Your task to perform on an android device: What's the weather going to be tomorrow? Image 0: 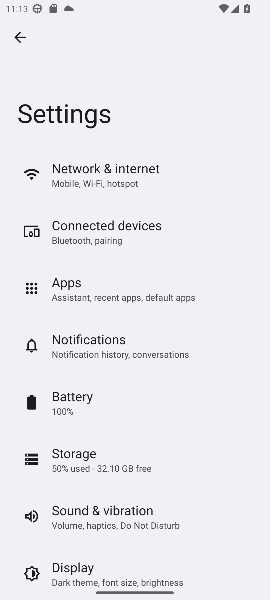
Step 0: press home button
Your task to perform on an android device: What's the weather going to be tomorrow? Image 1: 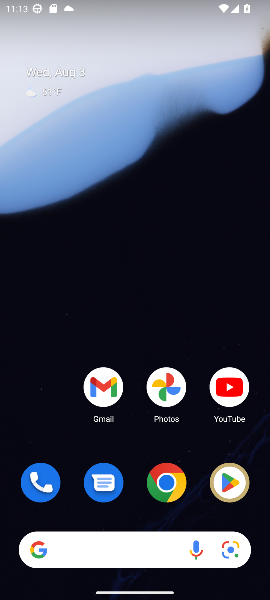
Step 1: click (130, 540)
Your task to perform on an android device: What's the weather going to be tomorrow? Image 2: 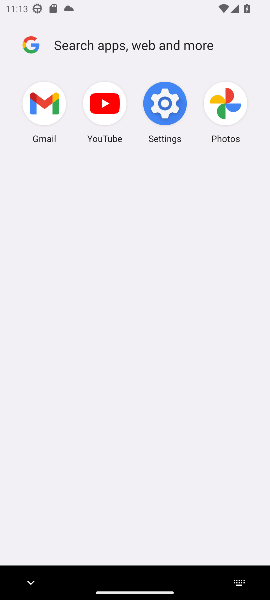
Step 2: type "weather"
Your task to perform on an android device: What's the weather going to be tomorrow? Image 3: 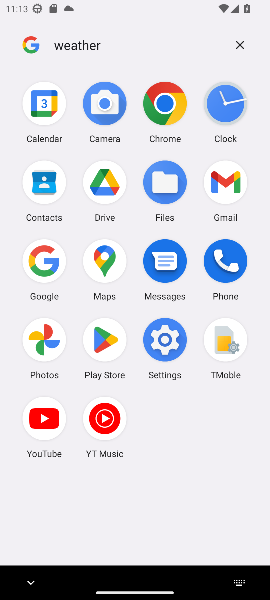
Step 3: task complete